Your task to perform on an android device: Clear the cart on target.com. Search for "macbook pro 15 inch" on target.com, select the first entry, add it to the cart, then select checkout. Image 0: 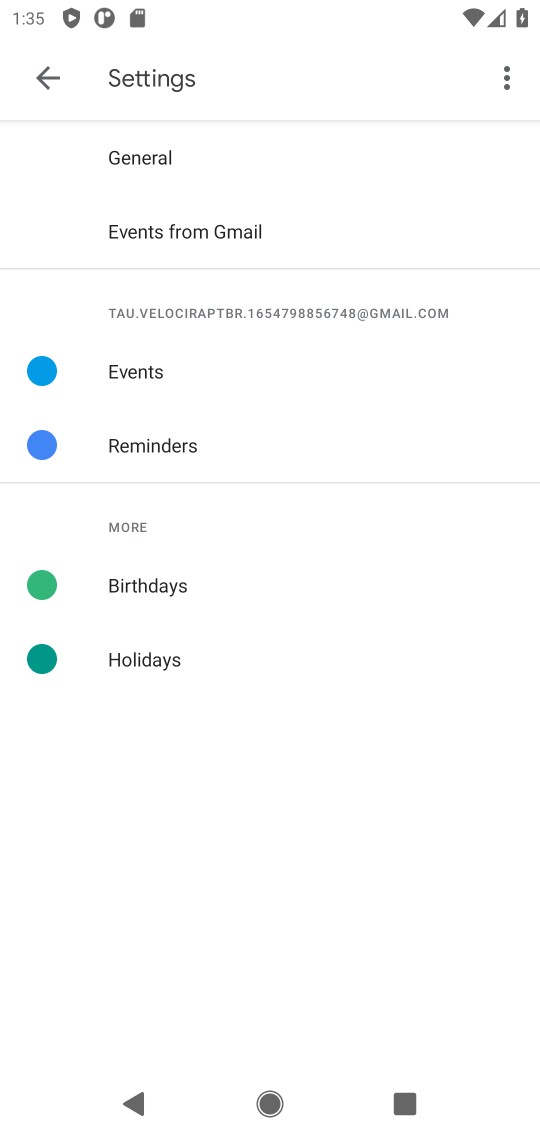
Step 0: press home button
Your task to perform on an android device: Clear the cart on target.com. Search for "macbook pro 15 inch" on target.com, select the first entry, add it to the cart, then select checkout. Image 1: 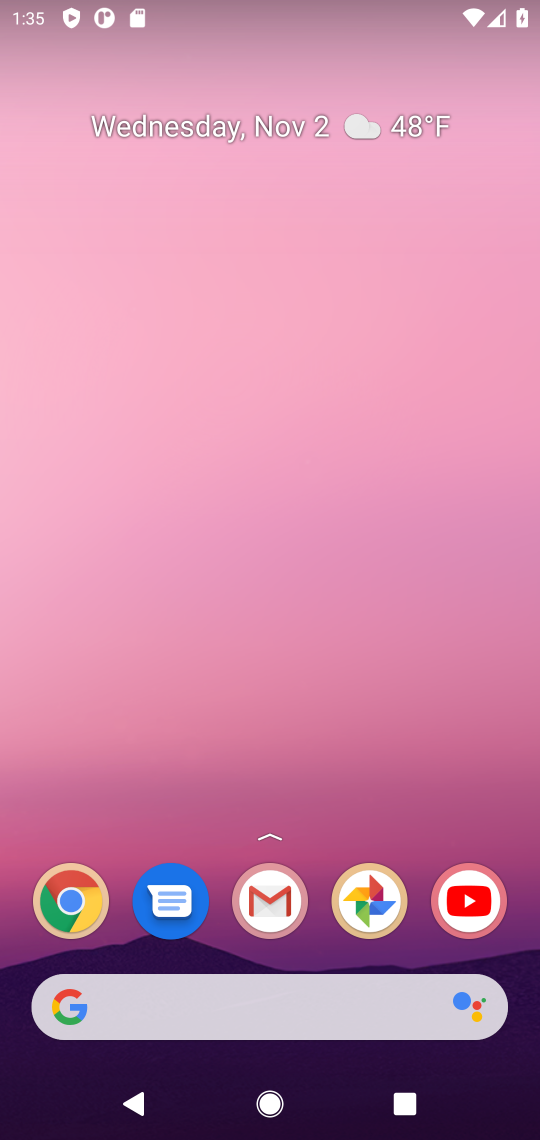
Step 1: drag from (312, 850) to (372, 203)
Your task to perform on an android device: Clear the cart on target.com. Search for "macbook pro 15 inch" on target.com, select the first entry, add it to the cart, then select checkout. Image 2: 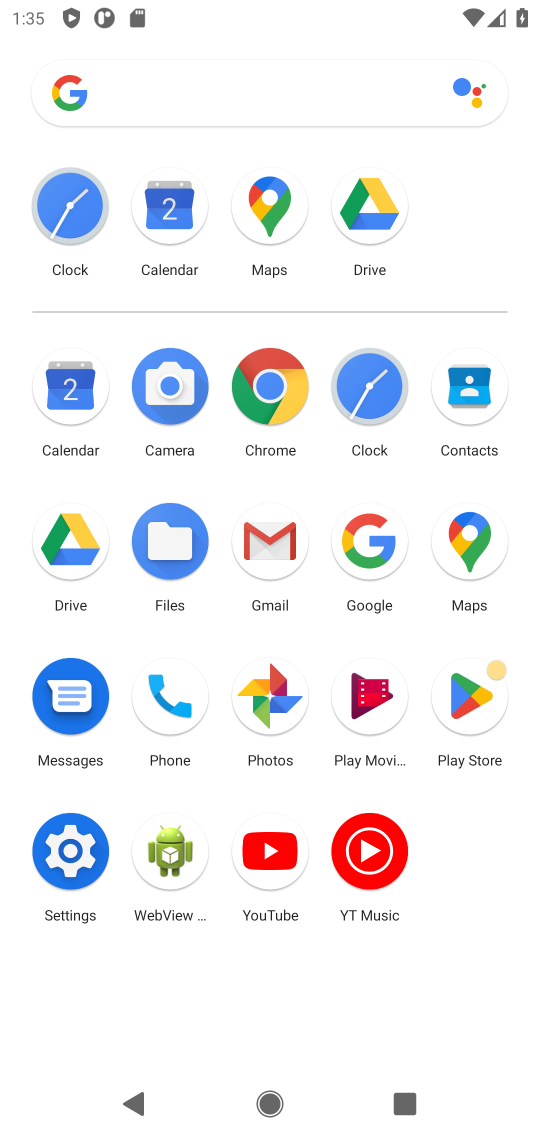
Step 2: click (281, 389)
Your task to perform on an android device: Clear the cart on target.com. Search for "macbook pro 15 inch" on target.com, select the first entry, add it to the cart, then select checkout. Image 3: 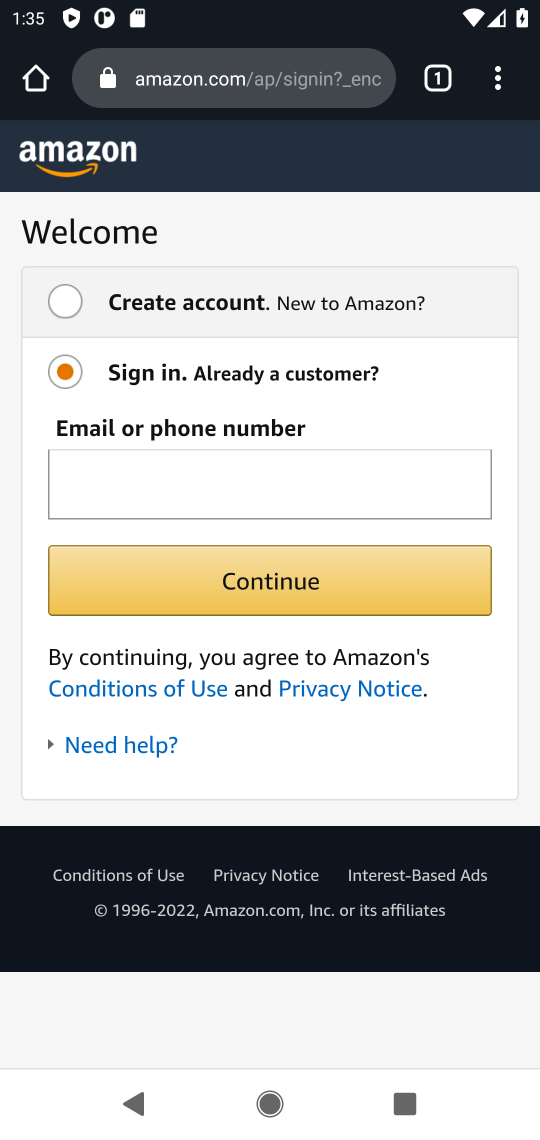
Step 3: click (314, 82)
Your task to perform on an android device: Clear the cart on target.com. Search for "macbook pro 15 inch" on target.com, select the first entry, add it to the cart, then select checkout. Image 4: 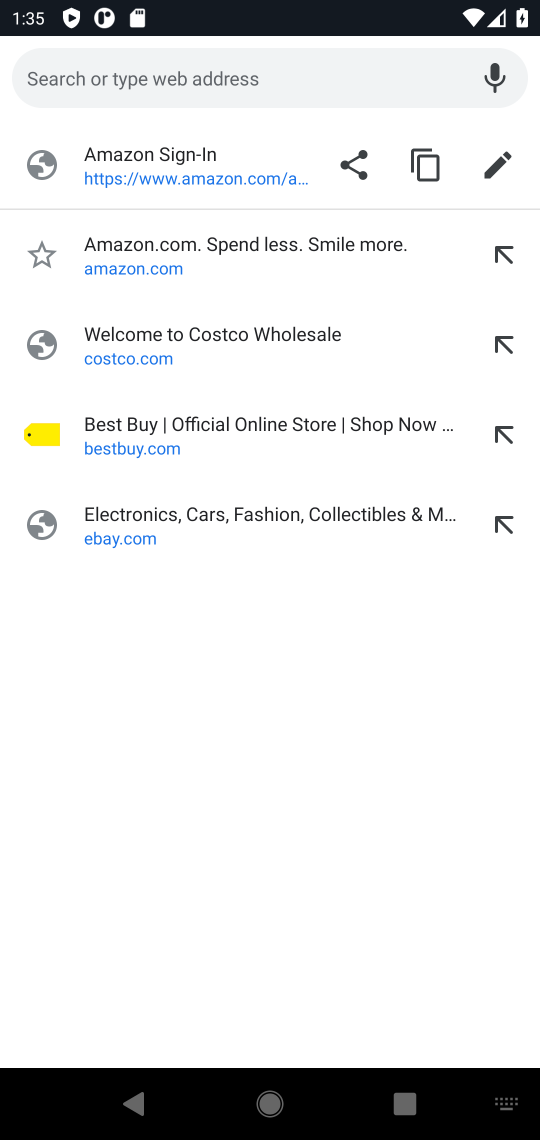
Step 4: type "target.com"
Your task to perform on an android device: Clear the cart on target.com. Search for "macbook pro 15 inch" on target.com, select the first entry, add it to the cart, then select checkout. Image 5: 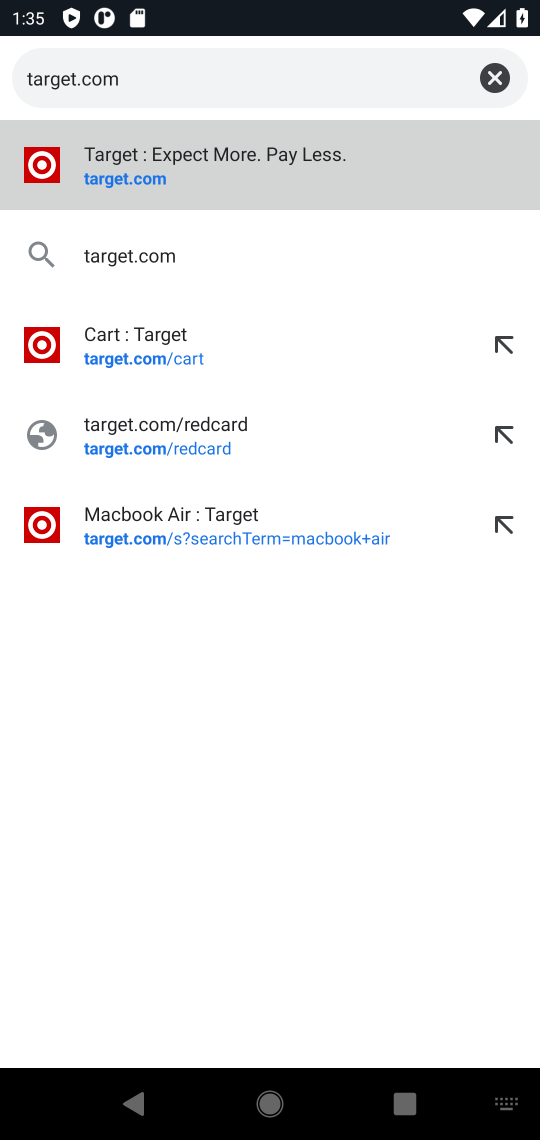
Step 5: press enter
Your task to perform on an android device: Clear the cart on target.com. Search for "macbook pro 15 inch" on target.com, select the first entry, add it to the cart, then select checkout. Image 6: 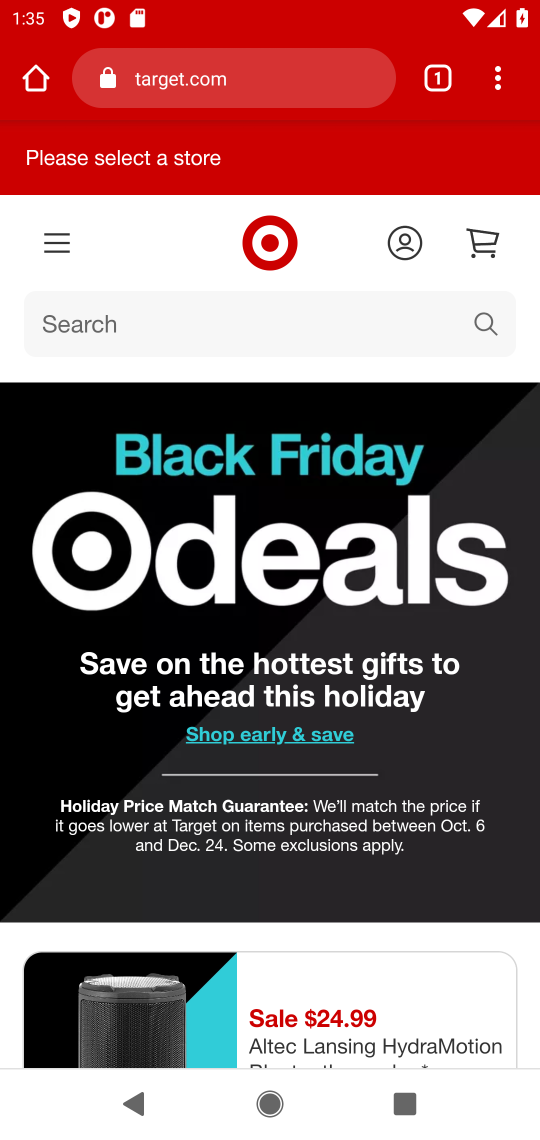
Step 6: click (475, 233)
Your task to perform on an android device: Clear the cart on target.com. Search for "macbook pro 15 inch" on target.com, select the first entry, add it to the cart, then select checkout. Image 7: 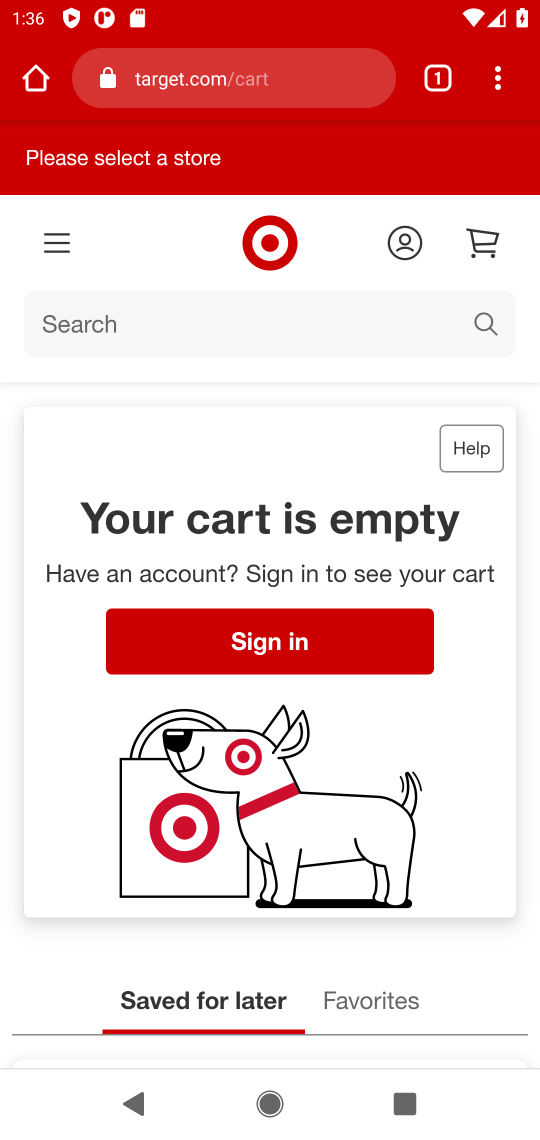
Step 7: click (407, 315)
Your task to perform on an android device: Clear the cart on target.com. Search for "macbook pro 15 inch" on target.com, select the first entry, add it to the cart, then select checkout. Image 8: 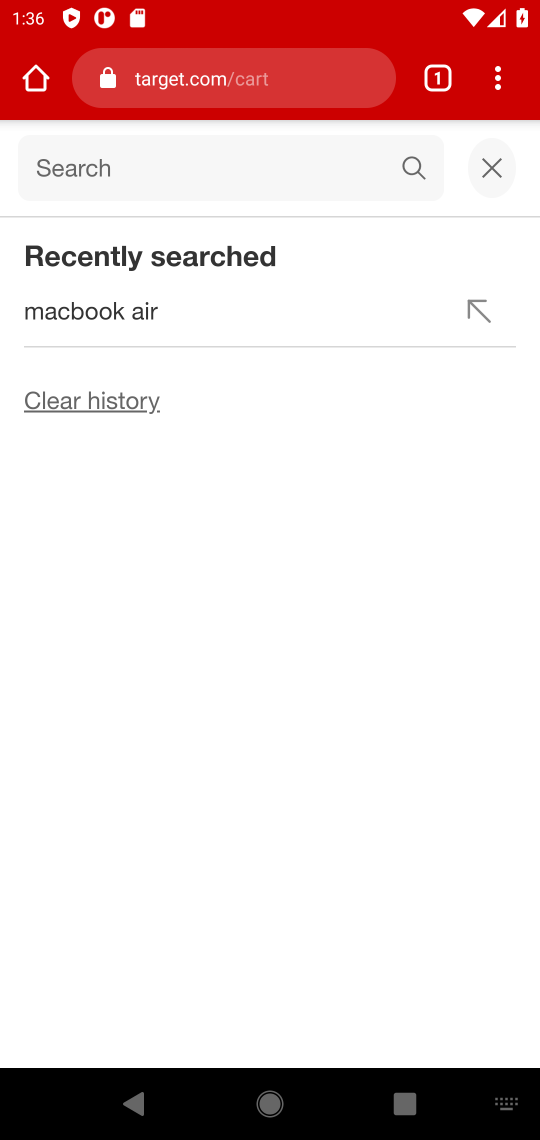
Step 8: type "macbook pro 15 inch"
Your task to perform on an android device: Clear the cart on target.com. Search for "macbook pro 15 inch" on target.com, select the first entry, add it to the cart, then select checkout. Image 9: 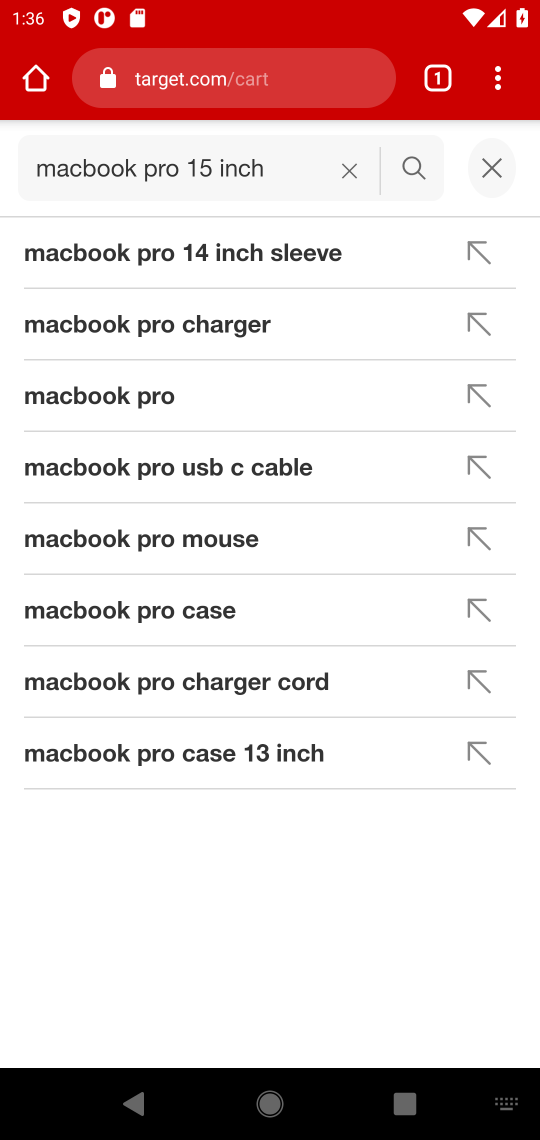
Step 9: press enter
Your task to perform on an android device: Clear the cart on target.com. Search for "macbook pro 15 inch" on target.com, select the first entry, add it to the cart, then select checkout. Image 10: 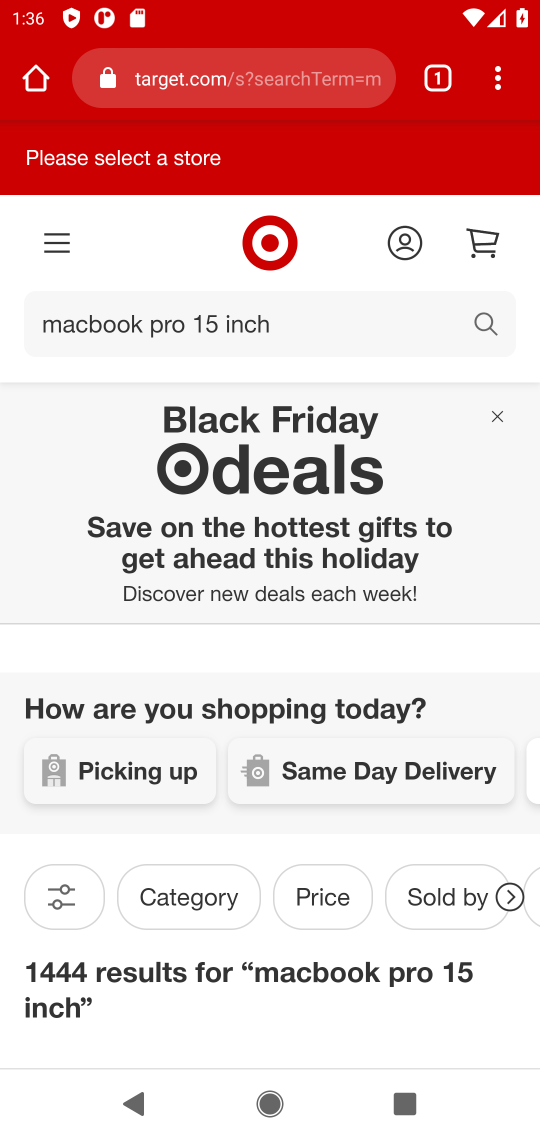
Step 10: task complete